Your task to perform on an android device: change the clock style Image 0: 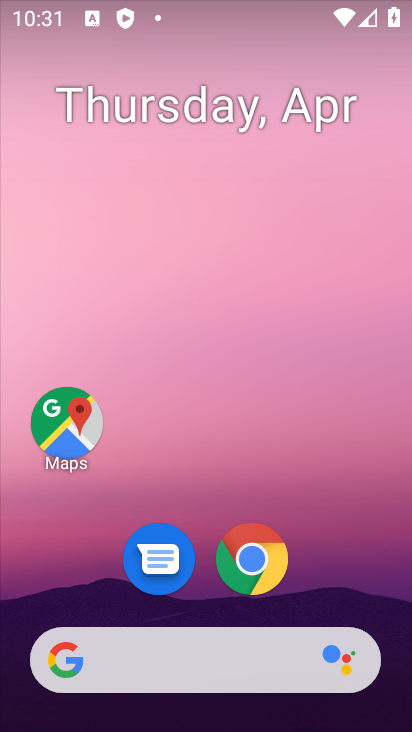
Step 0: drag from (247, 615) to (235, 7)
Your task to perform on an android device: change the clock style Image 1: 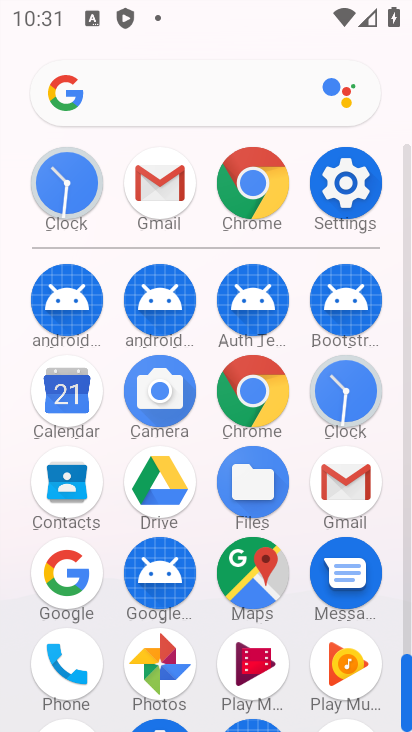
Step 1: click (354, 391)
Your task to perform on an android device: change the clock style Image 2: 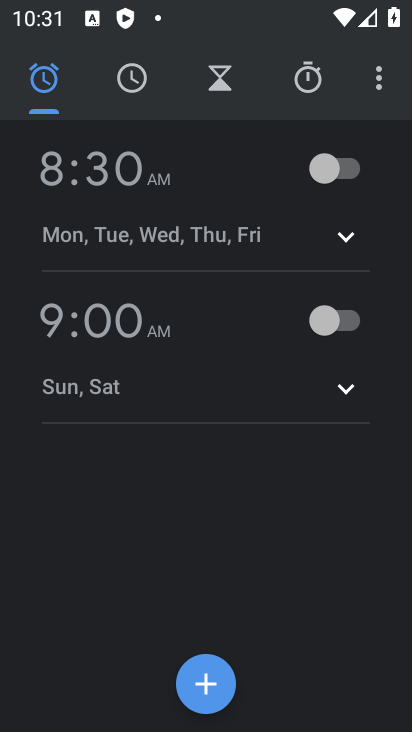
Step 2: click (379, 60)
Your task to perform on an android device: change the clock style Image 3: 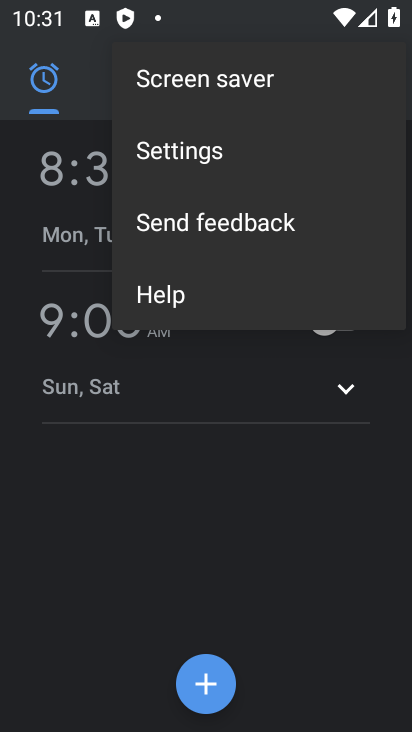
Step 3: click (262, 150)
Your task to perform on an android device: change the clock style Image 4: 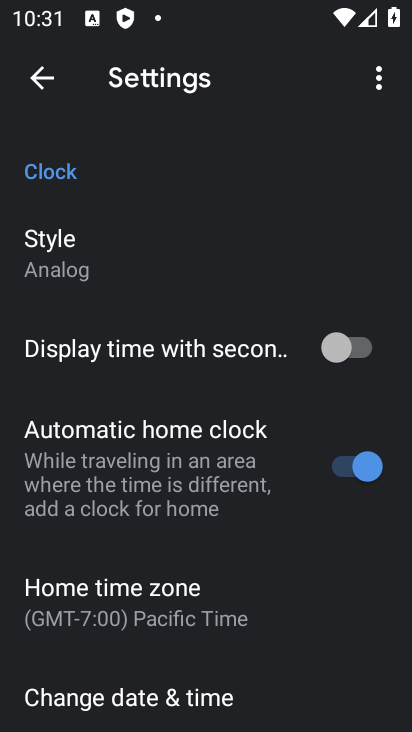
Step 4: click (63, 255)
Your task to perform on an android device: change the clock style Image 5: 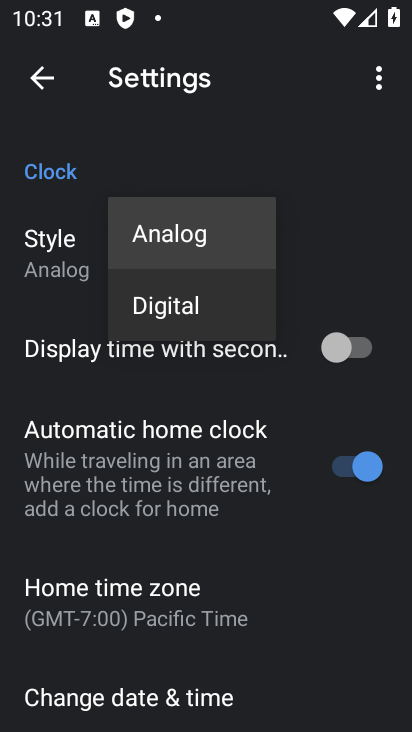
Step 5: click (164, 317)
Your task to perform on an android device: change the clock style Image 6: 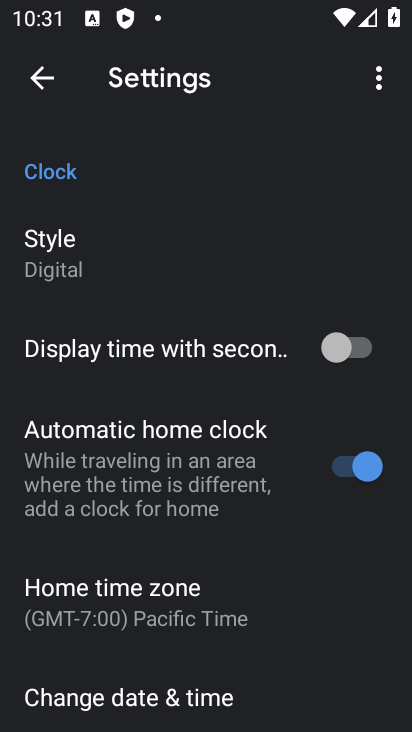
Step 6: task complete